Your task to perform on an android device: Open notification settings Image 0: 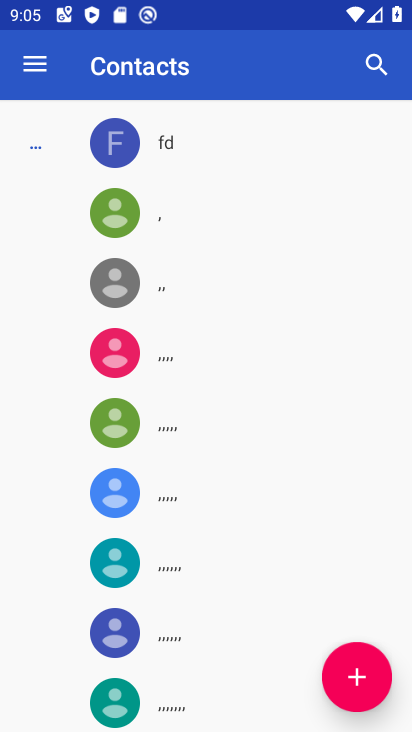
Step 0: press home button
Your task to perform on an android device: Open notification settings Image 1: 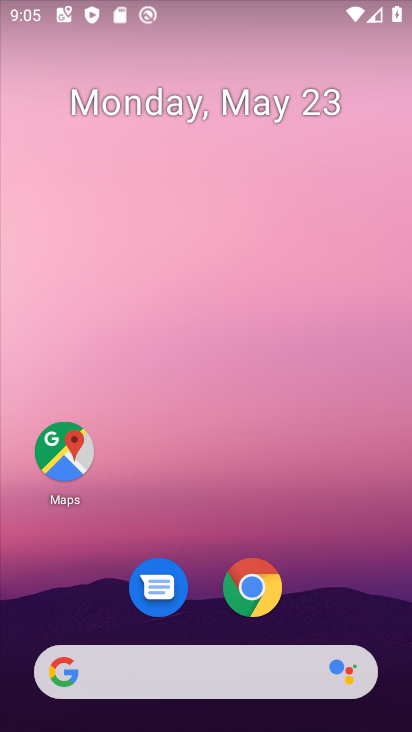
Step 1: drag from (333, 586) to (313, 79)
Your task to perform on an android device: Open notification settings Image 2: 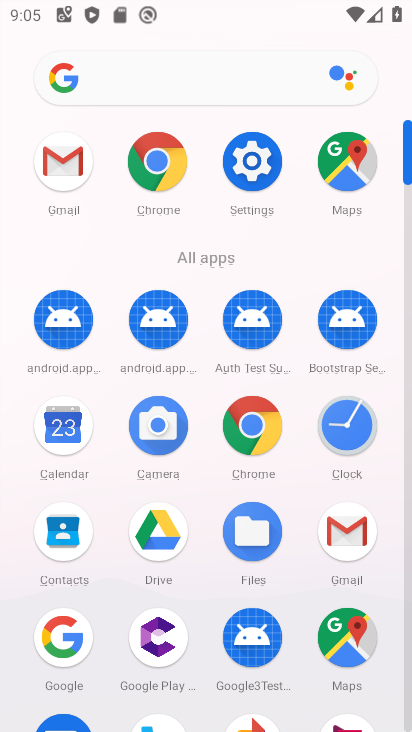
Step 2: click (244, 173)
Your task to perform on an android device: Open notification settings Image 3: 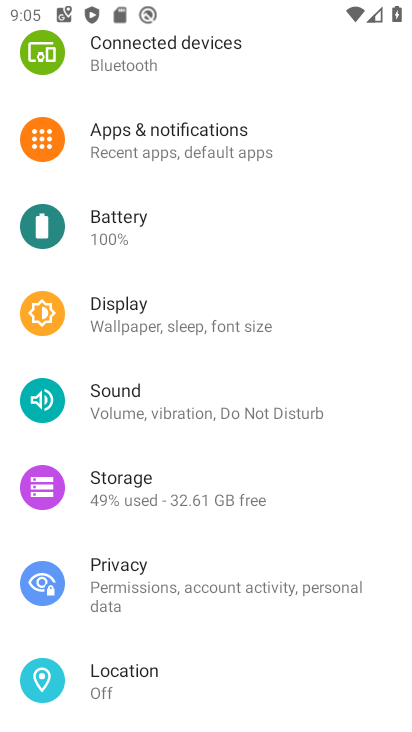
Step 3: click (194, 146)
Your task to perform on an android device: Open notification settings Image 4: 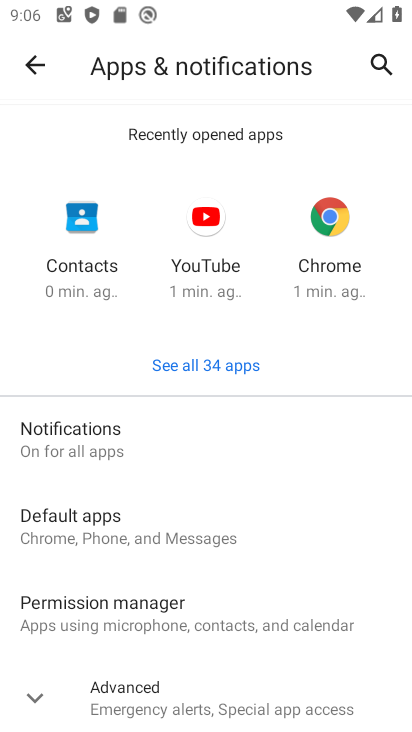
Step 4: click (143, 456)
Your task to perform on an android device: Open notification settings Image 5: 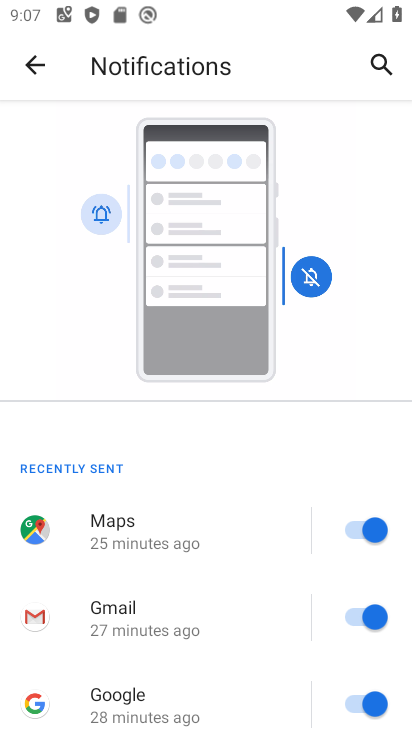
Step 5: task complete